Your task to perform on an android device: manage bookmarks in the chrome app Image 0: 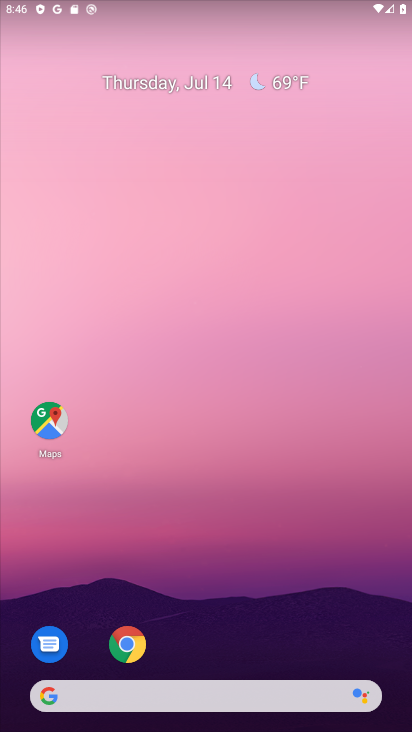
Step 0: click (119, 641)
Your task to perform on an android device: manage bookmarks in the chrome app Image 1: 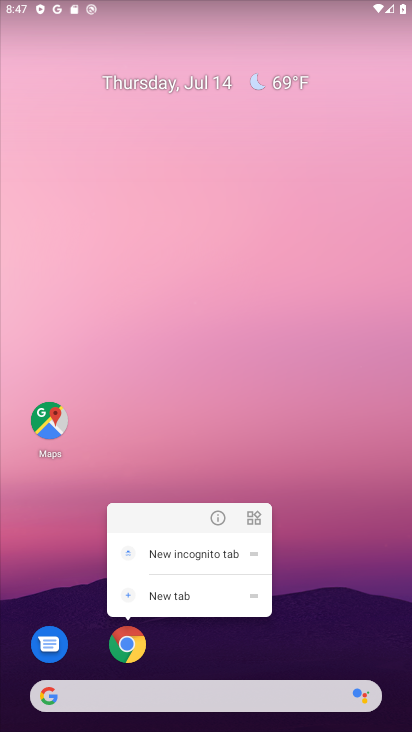
Step 1: click (163, 602)
Your task to perform on an android device: manage bookmarks in the chrome app Image 2: 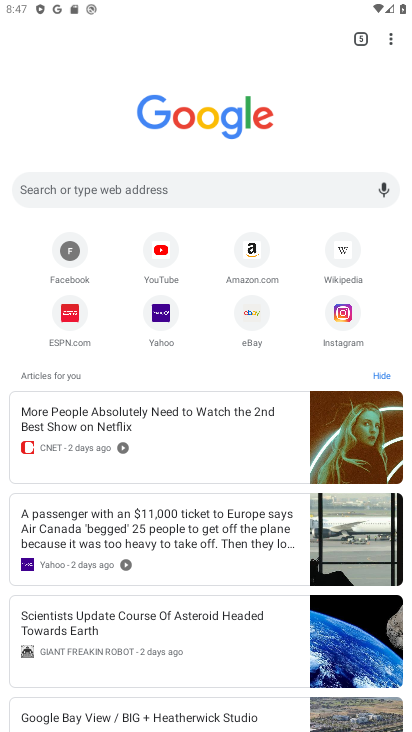
Step 2: click (400, 37)
Your task to perform on an android device: manage bookmarks in the chrome app Image 3: 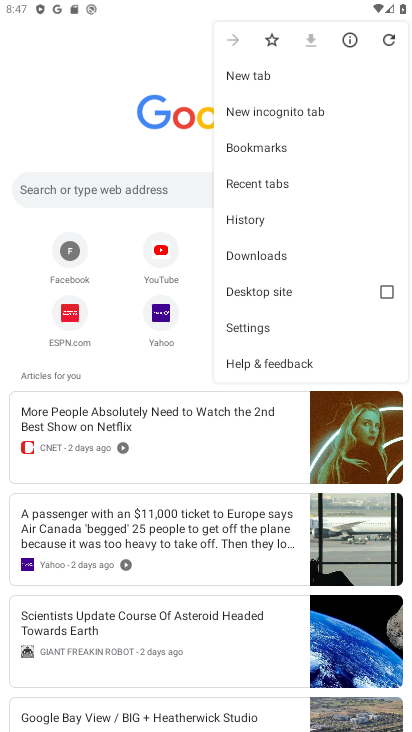
Step 3: click (274, 154)
Your task to perform on an android device: manage bookmarks in the chrome app Image 4: 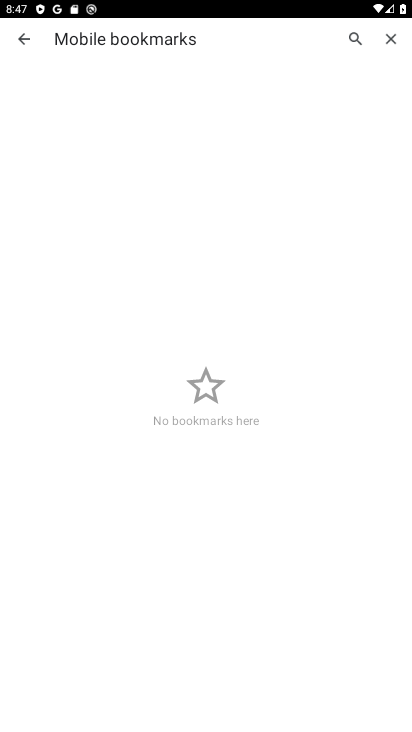
Step 4: task complete